Your task to perform on an android device: turn off notifications settings in the gmail app Image 0: 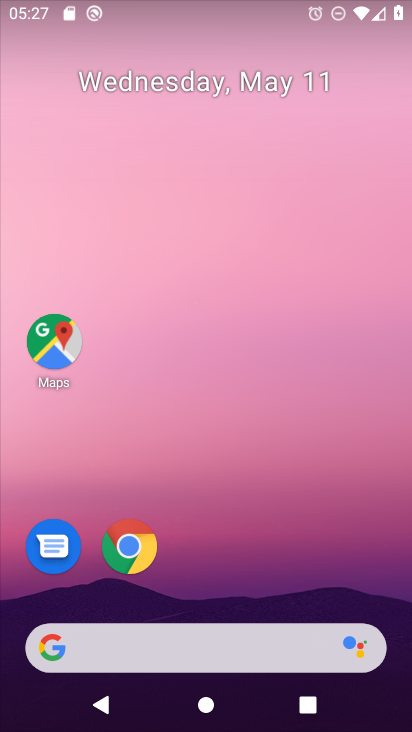
Step 0: drag from (285, 686) to (293, 3)
Your task to perform on an android device: turn off notifications settings in the gmail app Image 1: 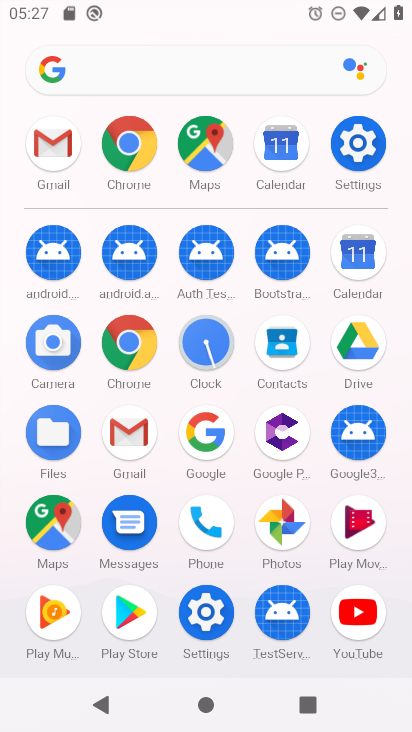
Step 1: click (133, 442)
Your task to perform on an android device: turn off notifications settings in the gmail app Image 2: 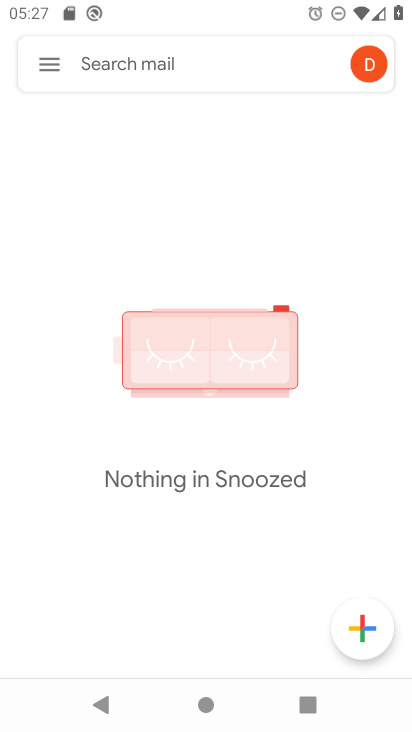
Step 2: press back button
Your task to perform on an android device: turn off notifications settings in the gmail app Image 3: 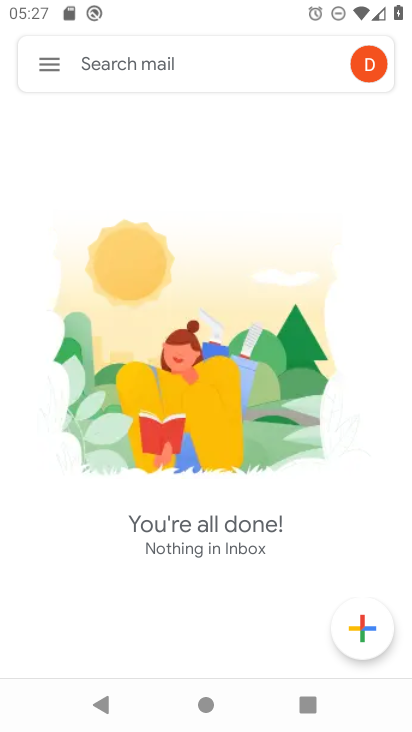
Step 3: click (55, 66)
Your task to perform on an android device: turn off notifications settings in the gmail app Image 4: 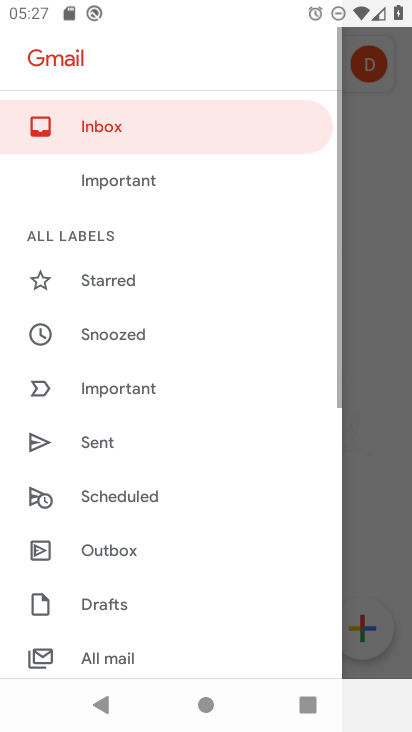
Step 4: drag from (214, 591) to (182, 33)
Your task to perform on an android device: turn off notifications settings in the gmail app Image 5: 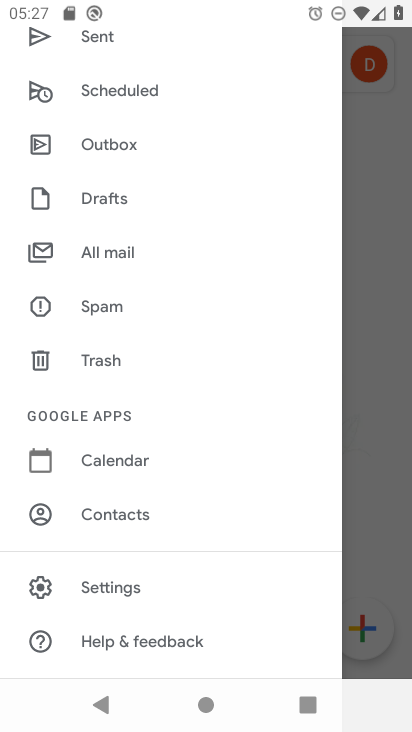
Step 5: click (156, 591)
Your task to perform on an android device: turn off notifications settings in the gmail app Image 6: 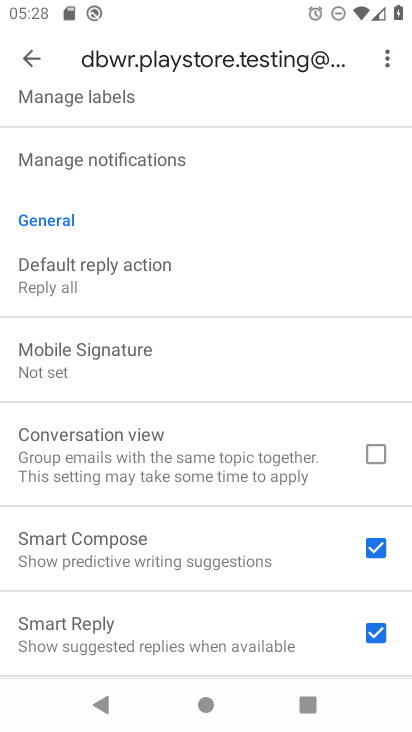
Step 6: click (240, 676)
Your task to perform on an android device: turn off notifications settings in the gmail app Image 7: 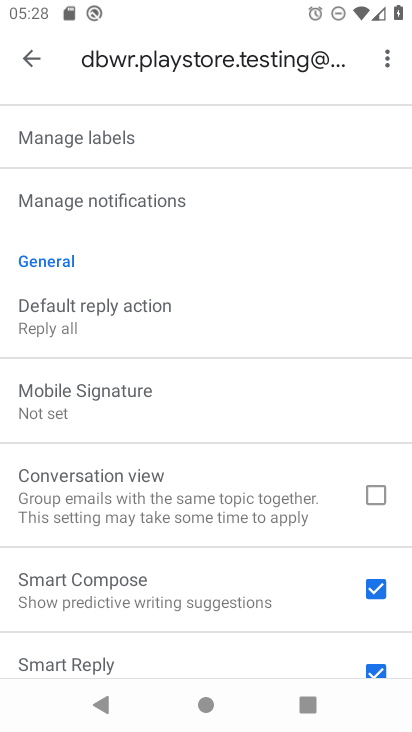
Step 7: click (187, 234)
Your task to perform on an android device: turn off notifications settings in the gmail app Image 8: 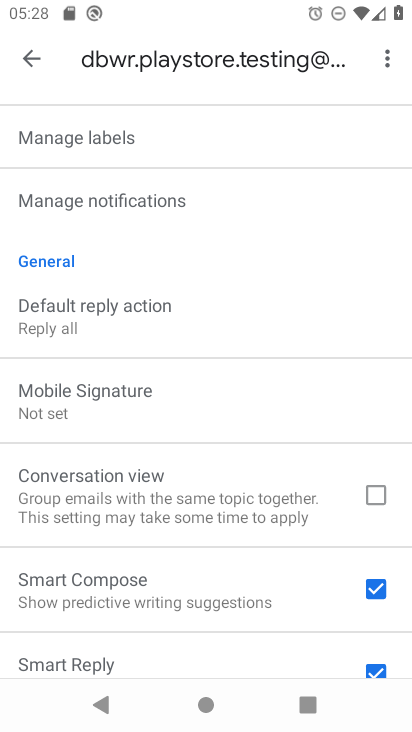
Step 8: click (192, 183)
Your task to perform on an android device: turn off notifications settings in the gmail app Image 9: 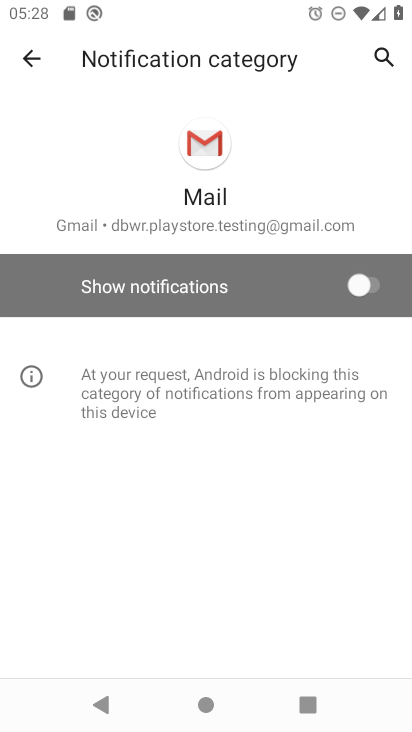
Step 9: task complete